Your task to perform on an android device: Go to notification settings Image 0: 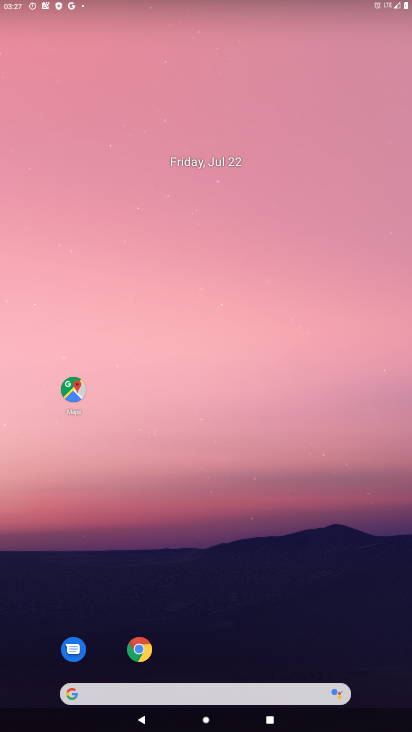
Step 0: drag from (321, 638) to (325, 188)
Your task to perform on an android device: Go to notification settings Image 1: 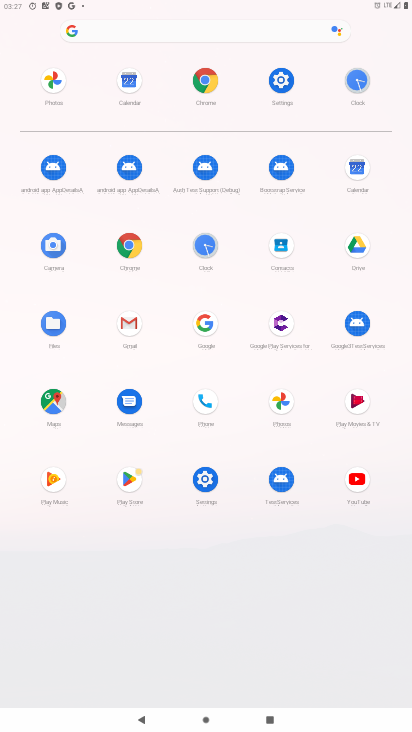
Step 1: click (285, 77)
Your task to perform on an android device: Go to notification settings Image 2: 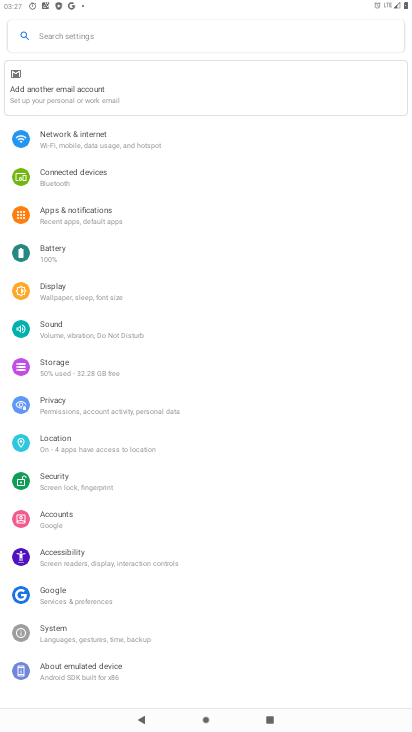
Step 2: click (72, 225)
Your task to perform on an android device: Go to notification settings Image 3: 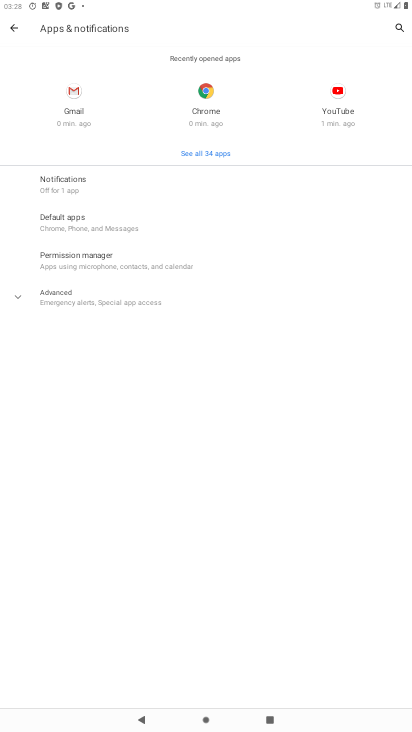
Step 3: click (85, 176)
Your task to perform on an android device: Go to notification settings Image 4: 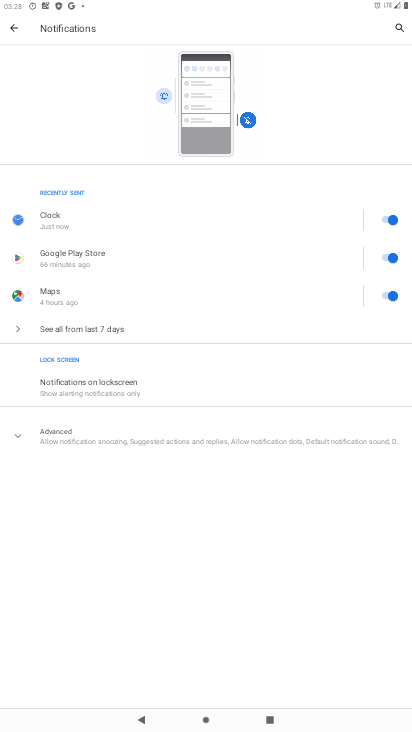
Step 4: task complete